Your task to perform on an android device: open a bookmark in the chrome app Image 0: 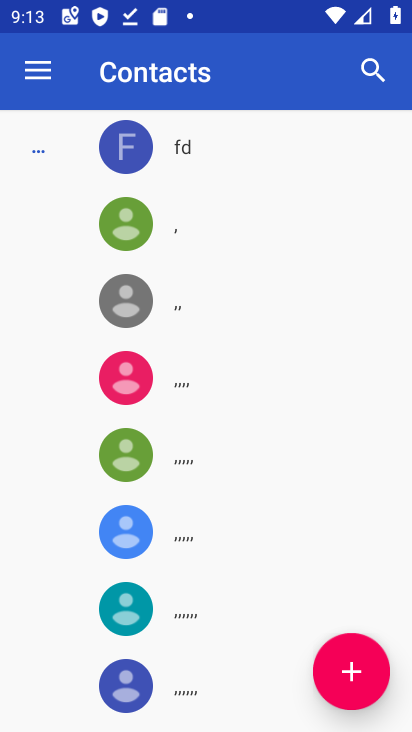
Step 0: press back button
Your task to perform on an android device: open a bookmark in the chrome app Image 1: 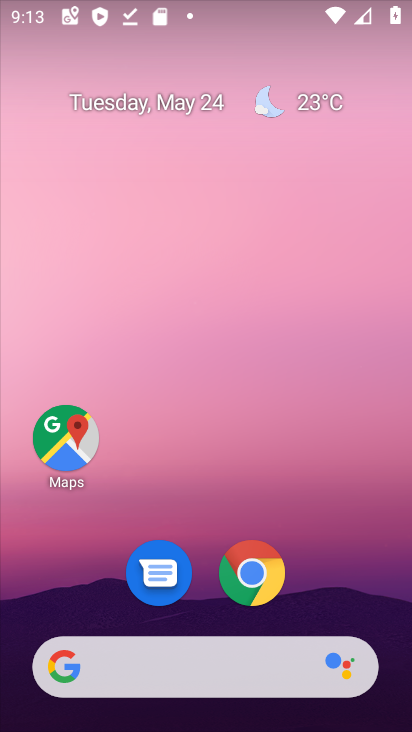
Step 1: drag from (288, 624) to (142, 110)
Your task to perform on an android device: open a bookmark in the chrome app Image 2: 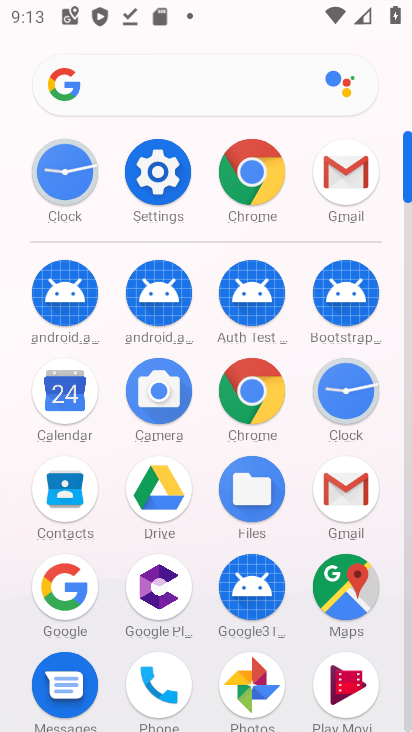
Step 2: click (251, 169)
Your task to perform on an android device: open a bookmark in the chrome app Image 3: 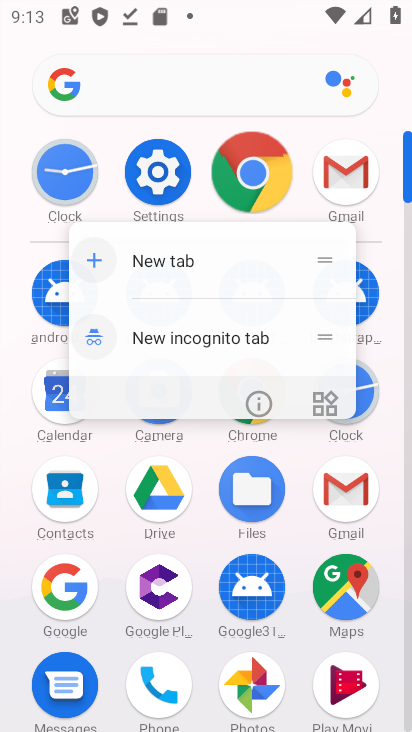
Step 3: click (255, 173)
Your task to perform on an android device: open a bookmark in the chrome app Image 4: 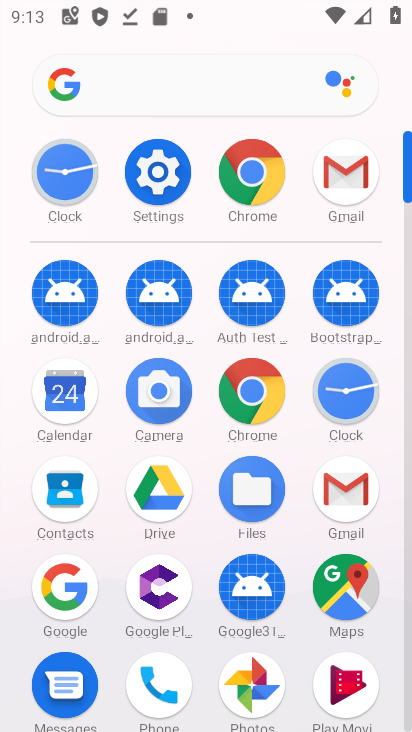
Step 4: click (255, 173)
Your task to perform on an android device: open a bookmark in the chrome app Image 5: 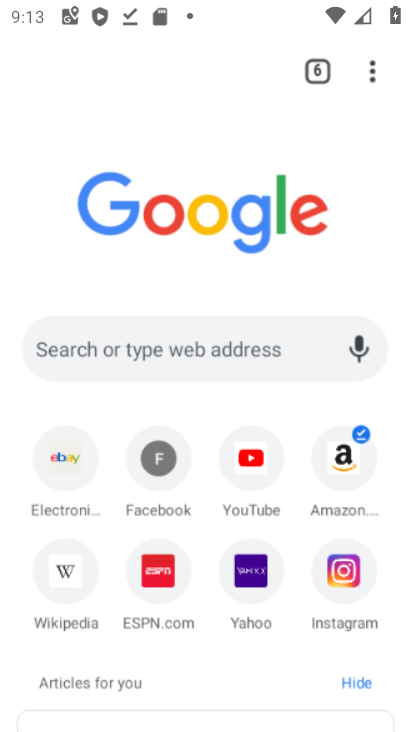
Step 5: click (248, 183)
Your task to perform on an android device: open a bookmark in the chrome app Image 6: 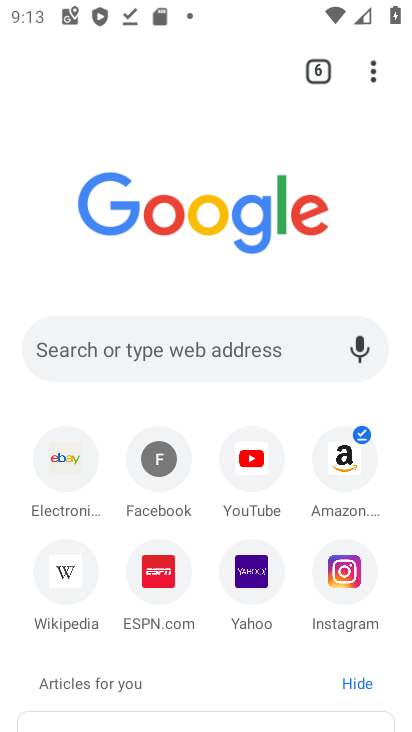
Step 6: drag from (368, 74) to (111, 269)
Your task to perform on an android device: open a bookmark in the chrome app Image 7: 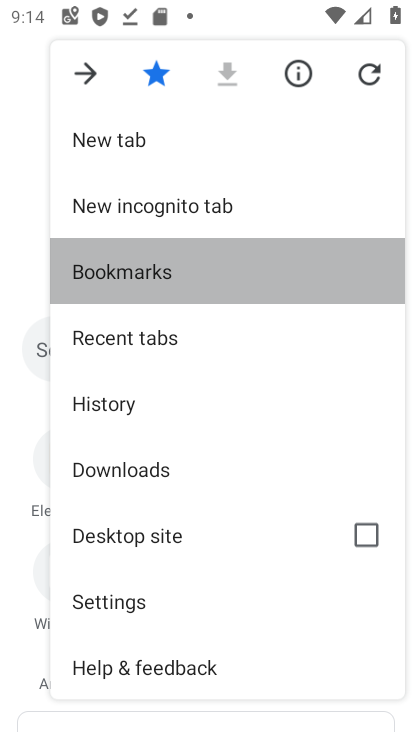
Step 7: click (117, 267)
Your task to perform on an android device: open a bookmark in the chrome app Image 8: 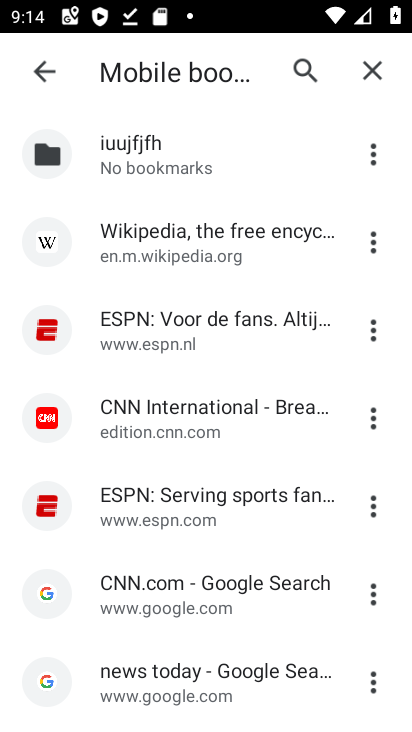
Step 8: task complete